Your task to perform on an android device: change the clock display to analog Image 0: 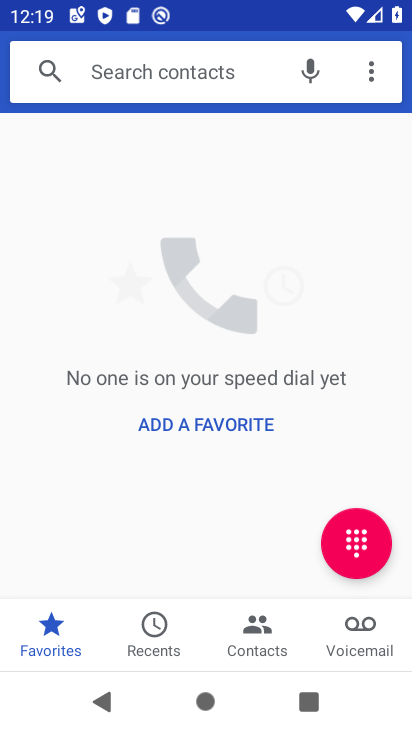
Step 0: press home button
Your task to perform on an android device: change the clock display to analog Image 1: 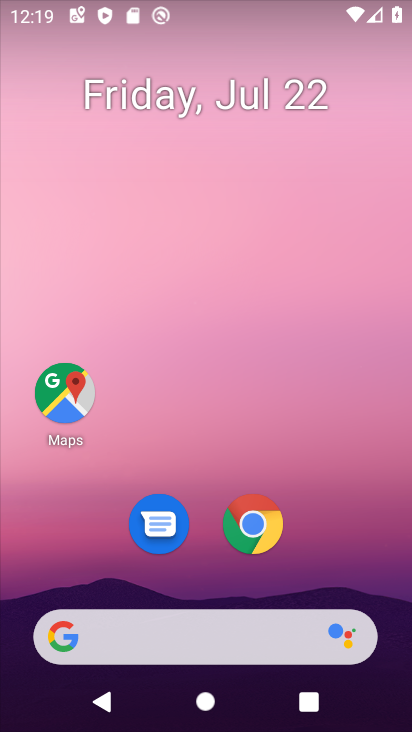
Step 1: drag from (342, 584) to (344, 0)
Your task to perform on an android device: change the clock display to analog Image 2: 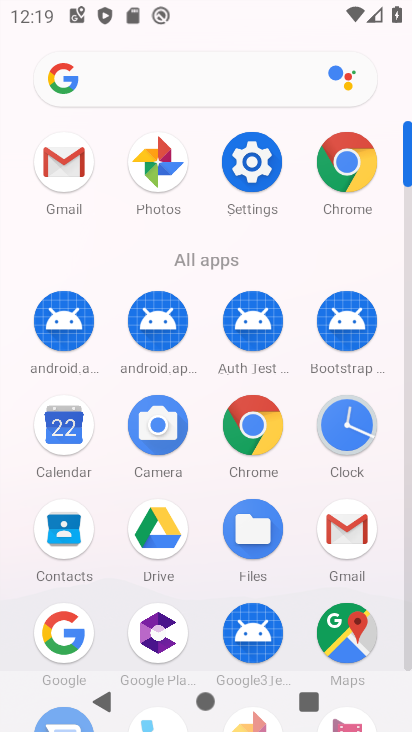
Step 2: click (332, 422)
Your task to perform on an android device: change the clock display to analog Image 3: 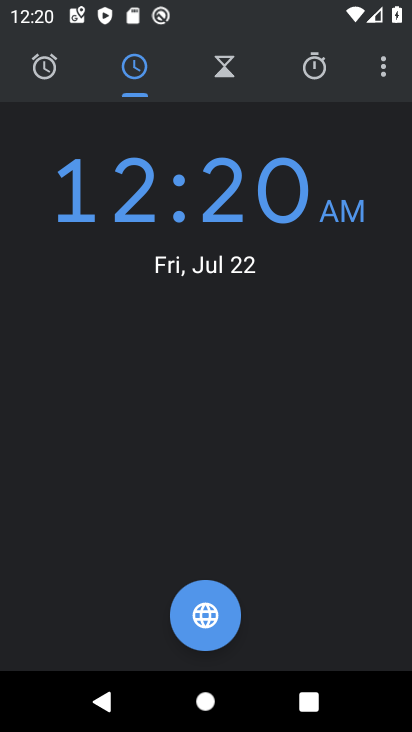
Step 3: click (381, 72)
Your task to perform on an android device: change the clock display to analog Image 4: 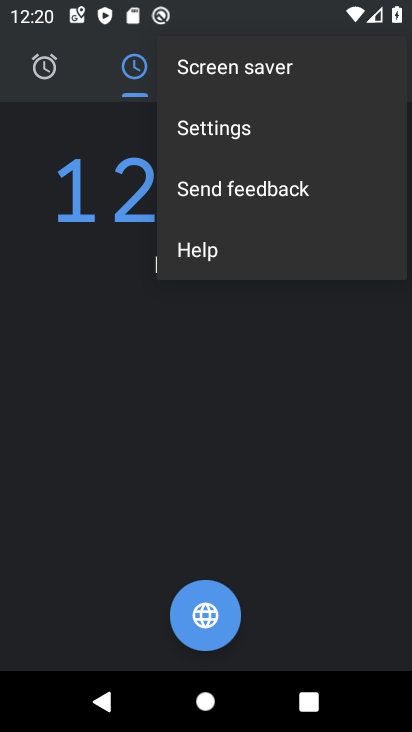
Step 4: click (237, 133)
Your task to perform on an android device: change the clock display to analog Image 5: 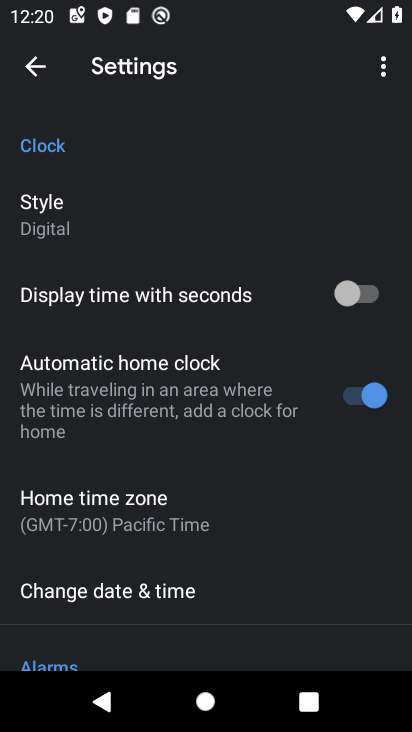
Step 5: click (60, 224)
Your task to perform on an android device: change the clock display to analog Image 6: 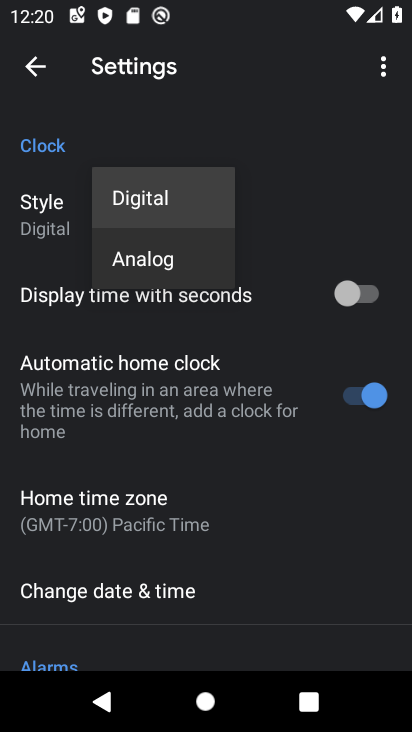
Step 6: click (134, 250)
Your task to perform on an android device: change the clock display to analog Image 7: 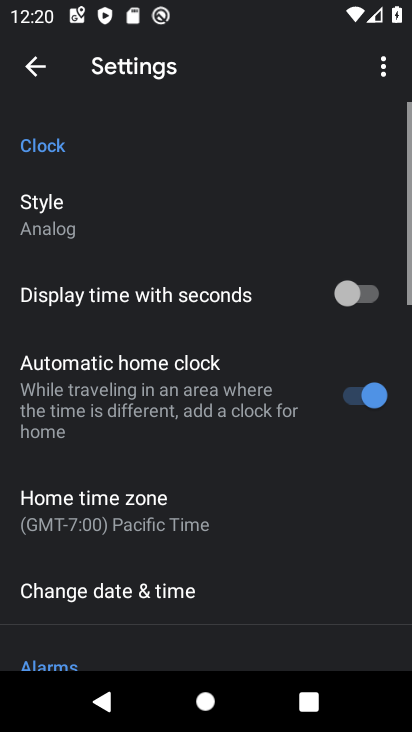
Step 7: click (40, 66)
Your task to perform on an android device: change the clock display to analog Image 8: 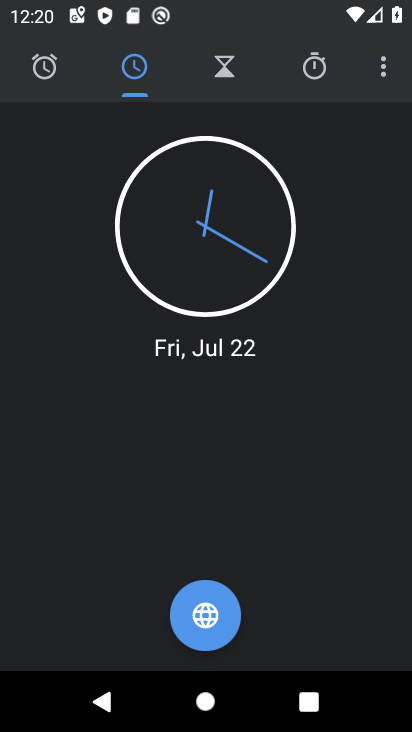
Step 8: task complete